Your task to perform on an android device: turn off data saver in the chrome app Image 0: 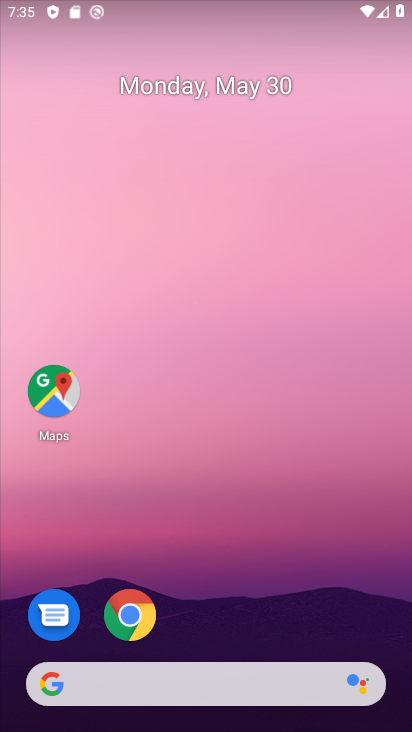
Step 0: drag from (260, 539) to (274, 2)
Your task to perform on an android device: turn off data saver in the chrome app Image 1: 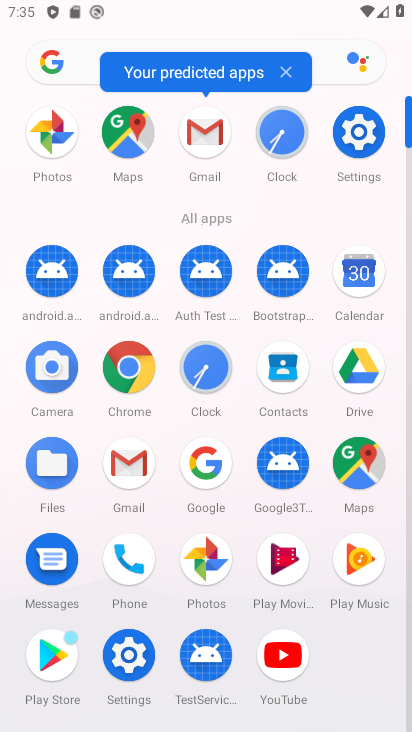
Step 1: click (132, 367)
Your task to perform on an android device: turn off data saver in the chrome app Image 2: 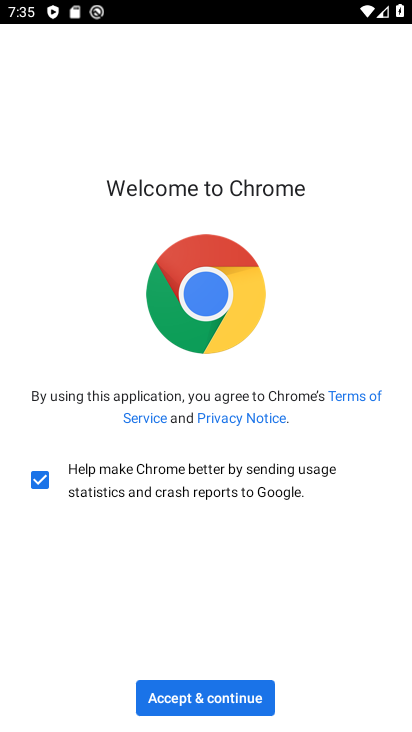
Step 2: click (261, 705)
Your task to perform on an android device: turn off data saver in the chrome app Image 3: 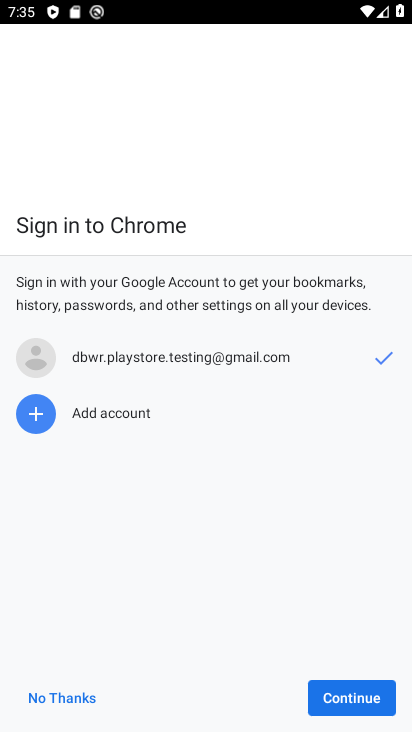
Step 3: click (53, 698)
Your task to perform on an android device: turn off data saver in the chrome app Image 4: 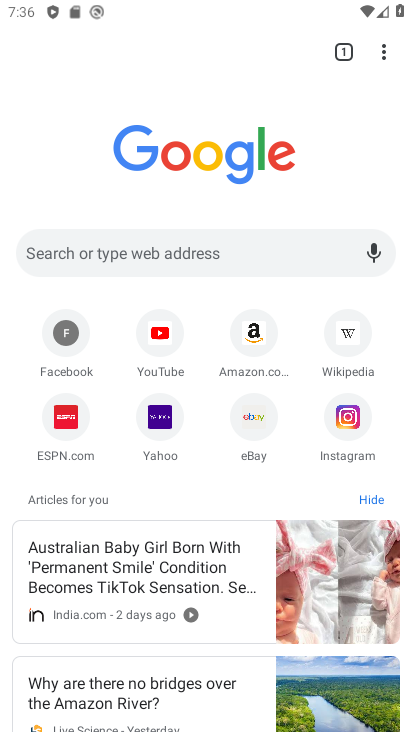
Step 4: drag from (384, 50) to (248, 440)
Your task to perform on an android device: turn off data saver in the chrome app Image 5: 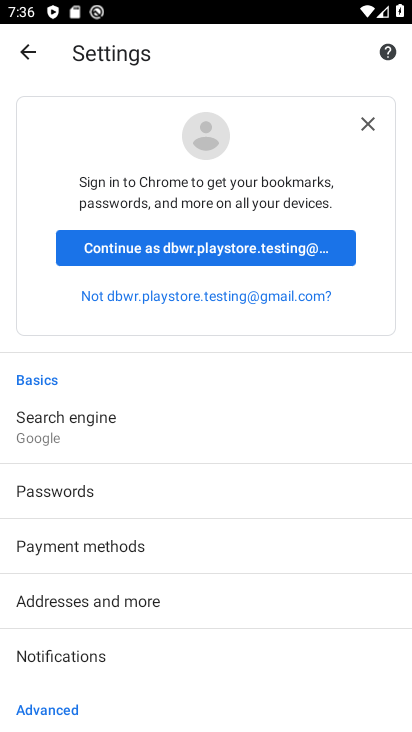
Step 5: drag from (250, 622) to (331, 182)
Your task to perform on an android device: turn off data saver in the chrome app Image 6: 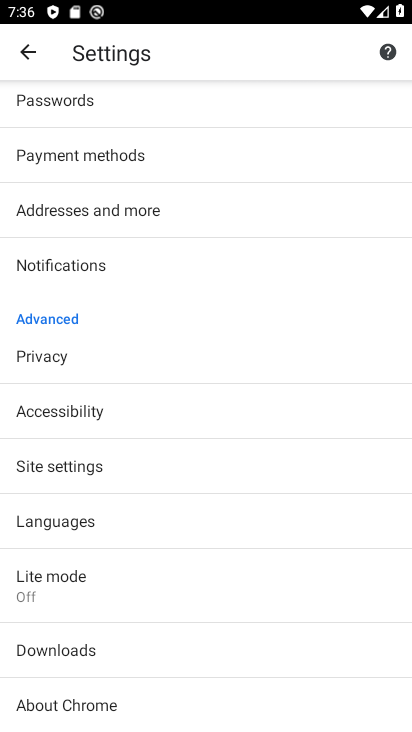
Step 6: click (99, 584)
Your task to perform on an android device: turn off data saver in the chrome app Image 7: 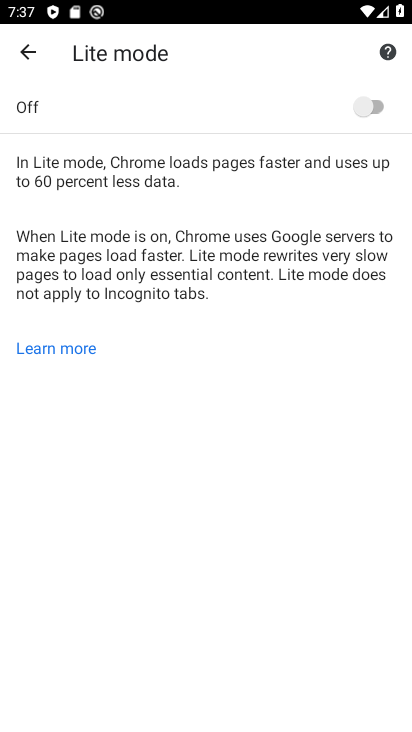
Step 7: task complete